Your task to perform on an android device: toggle location history Image 0: 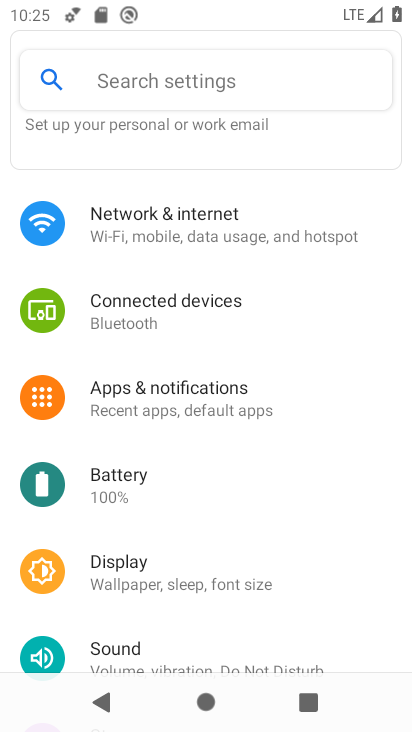
Step 0: press home button
Your task to perform on an android device: toggle location history Image 1: 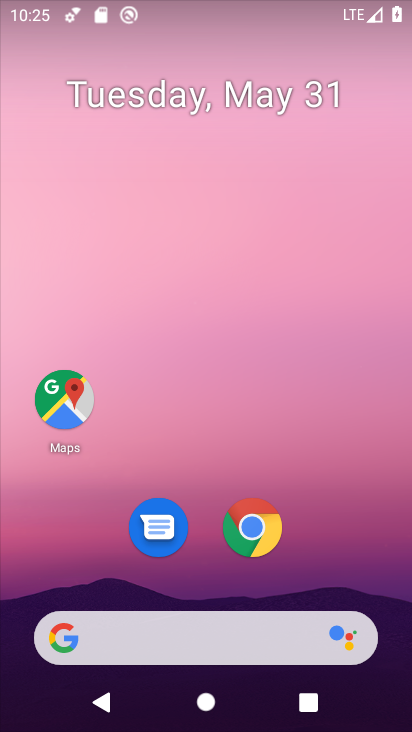
Step 1: click (63, 400)
Your task to perform on an android device: toggle location history Image 2: 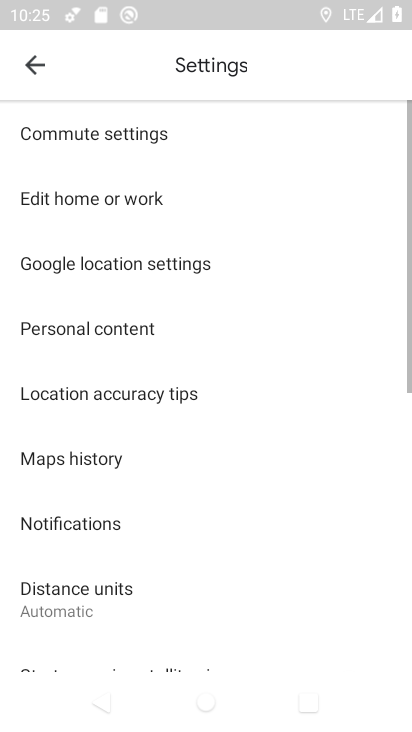
Step 2: click (34, 68)
Your task to perform on an android device: toggle location history Image 3: 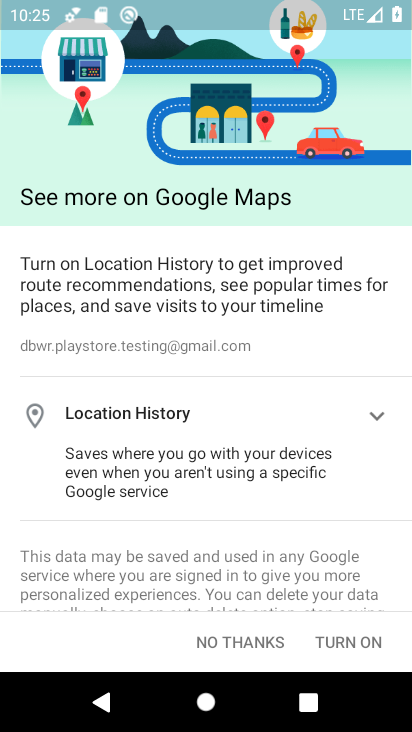
Step 3: click (211, 654)
Your task to perform on an android device: toggle location history Image 4: 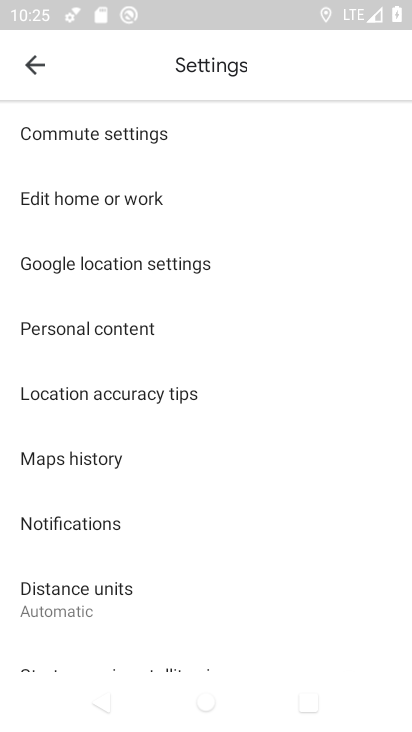
Step 4: click (32, 67)
Your task to perform on an android device: toggle location history Image 5: 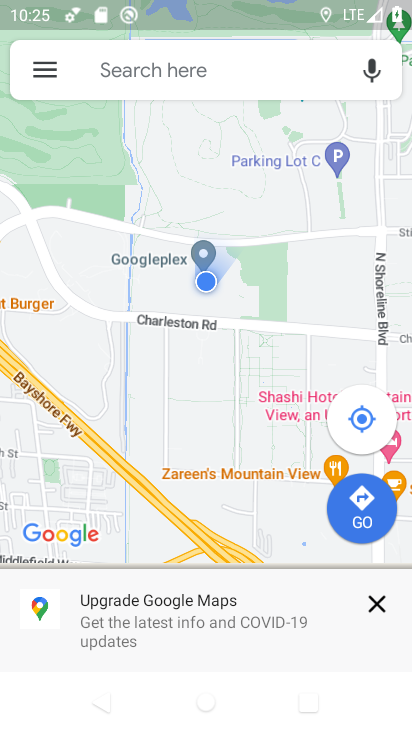
Step 5: click (47, 68)
Your task to perform on an android device: toggle location history Image 6: 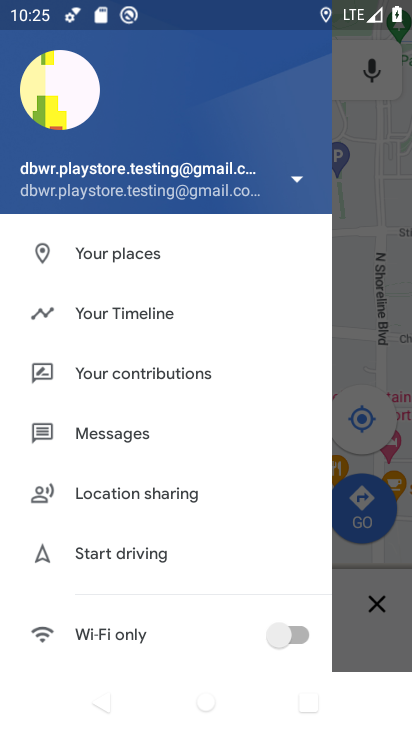
Step 6: click (110, 311)
Your task to perform on an android device: toggle location history Image 7: 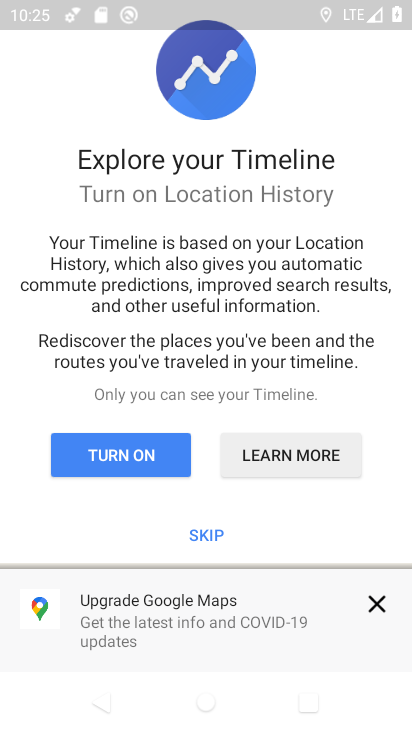
Step 7: click (202, 534)
Your task to perform on an android device: toggle location history Image 8: 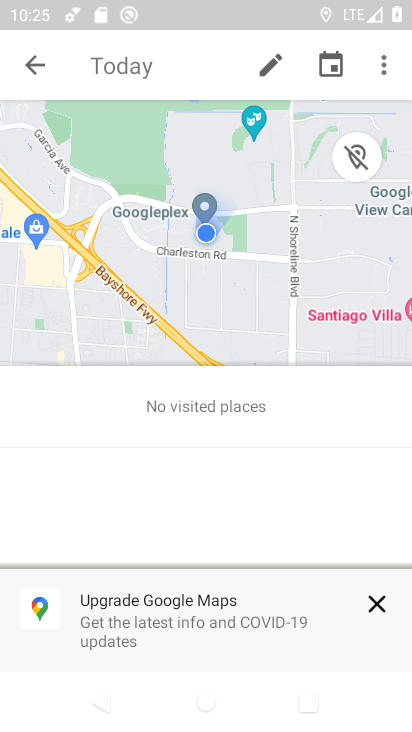
Step 8: click (382, 59)
Your task to perform on an android device: toggle location history Image 9: 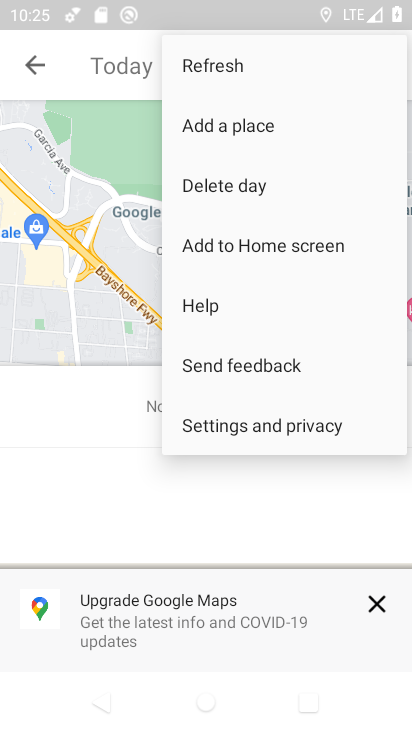
Step 9: click (220, 427)
Your task to perform on an android device: toggle location history Image 10: 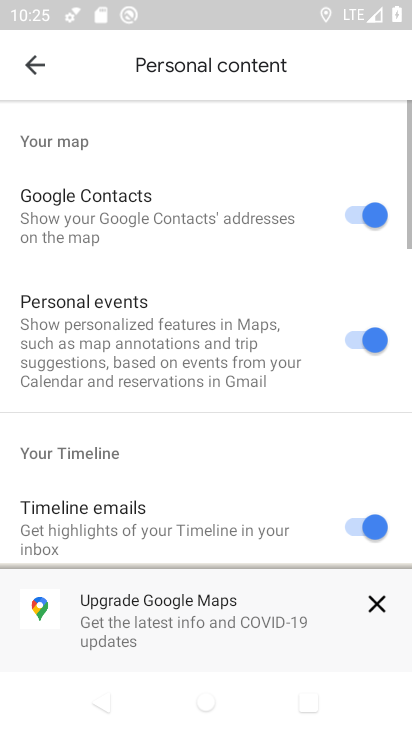
Step 10: drag from (176, 491) to (189, 96)
Your task to perform on an android device: toggle location history Image 11: 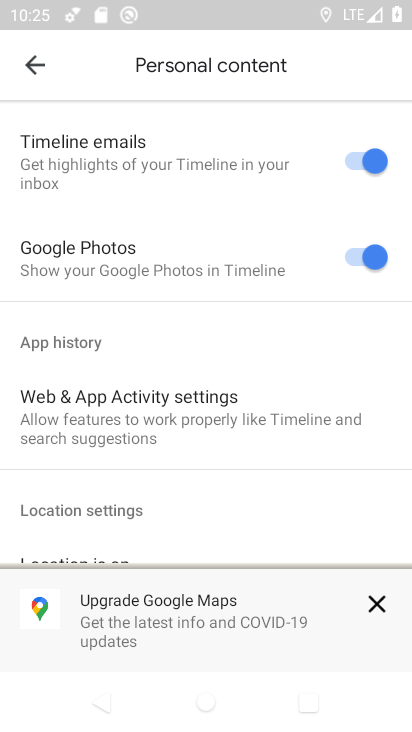
Step 11: drag from (167, 396) to (175, 88)
Your task to perform on an android device: toggle location history Image 12: 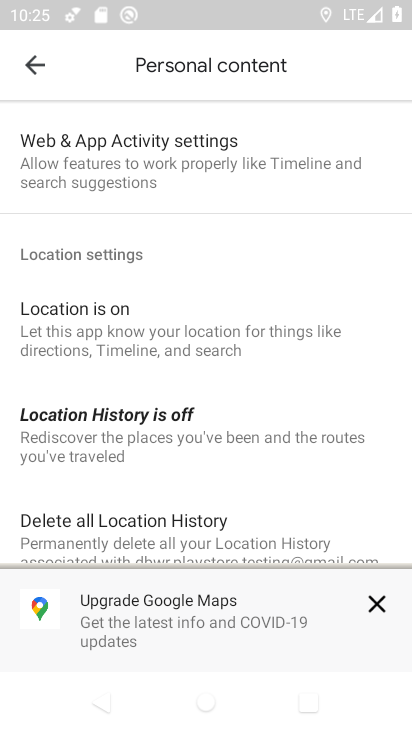
Step 12: drag from (167, 469) to (170, 157)
Your task to perform on an android device: toggle location history Image 13: 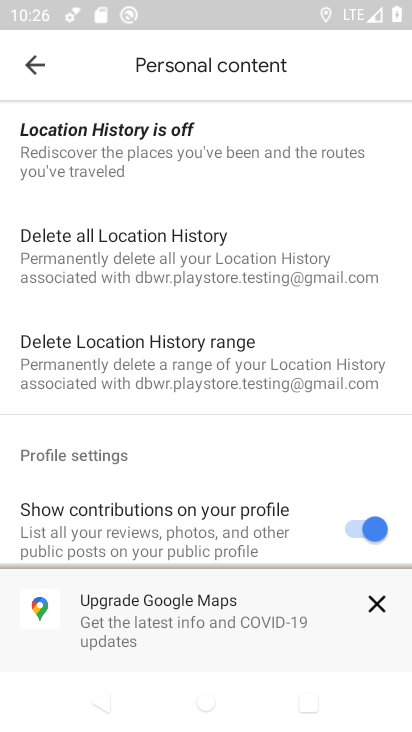
Step 13: click (85, 166)
Your task to perform on an android device: toggle location history Image 14: 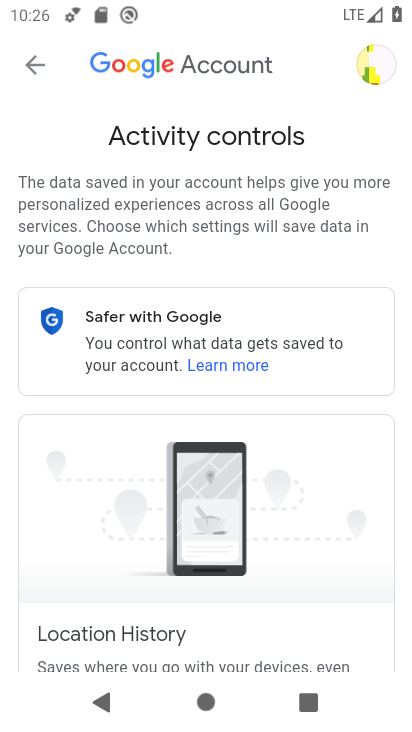
Step 14: drag from (236, 560) to (218, 129)
Your task to perform on an android device: toggle location history Image 15: 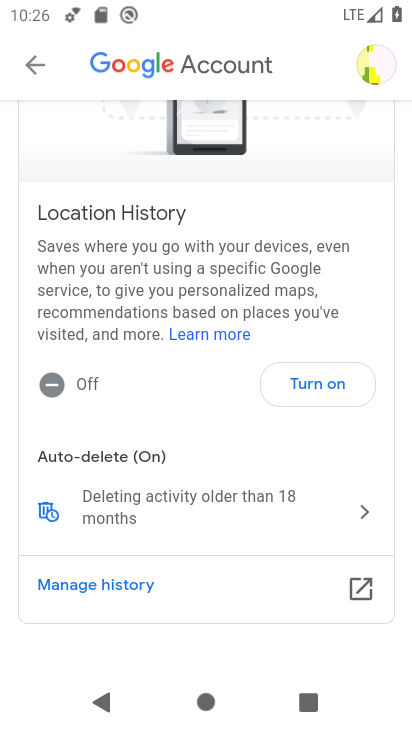
Step 15: click (316, 384)
Your task to perform on an android device: toggle location history Image 16: 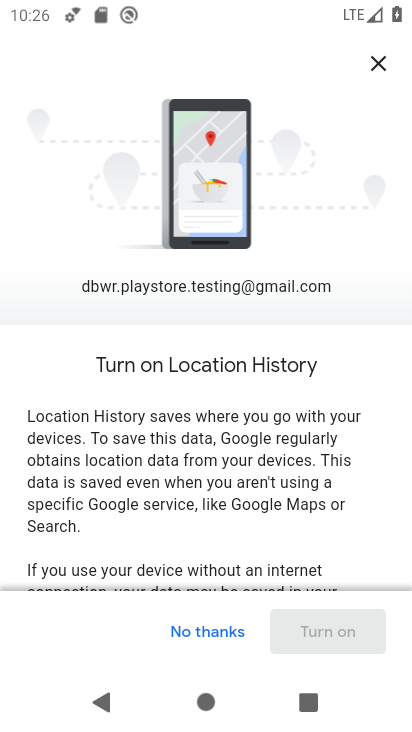
Step 16: drag from (217, 545) to (199, 22)
Your task to perform on an android device: toggle location history Image 17: 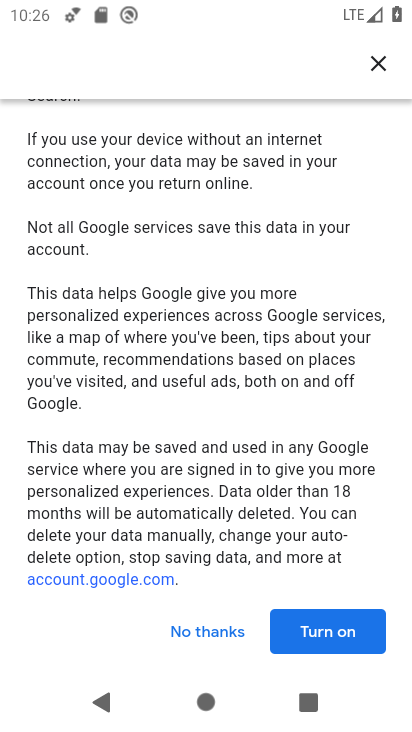
Step 17: drag from (225, 495) to (224, 106)
Your task to perform on an android device: toggle location history Image 18: 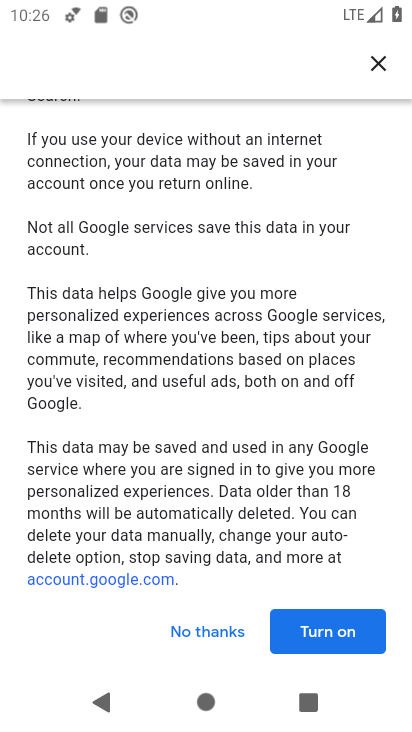
Step 18: click (320, 635)
Your task to perform on an android device: toggle location history Image 19: 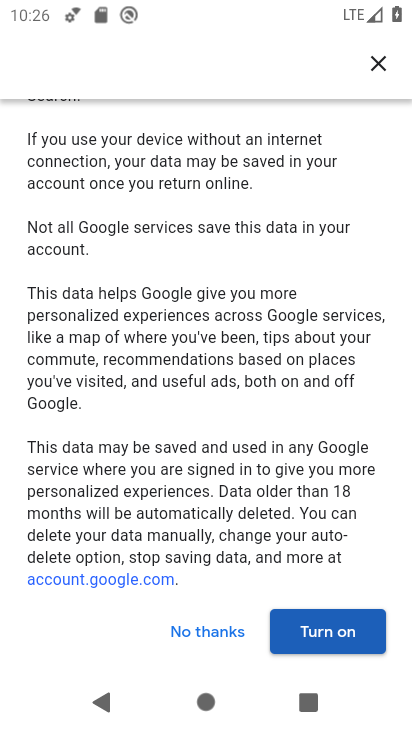
Step 19: click (338, 639)
Your task to perform on an android device: toggle location history Image 20: 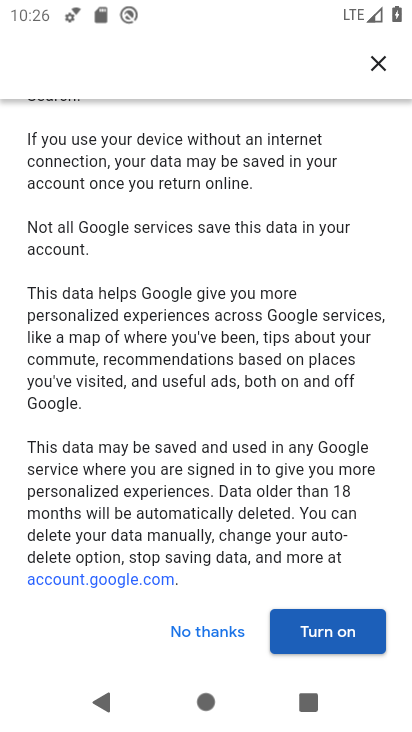
Step 20: drag from (228, 538) to (205, 326)
Your task to perform on an android device: toggle location history Image 21: 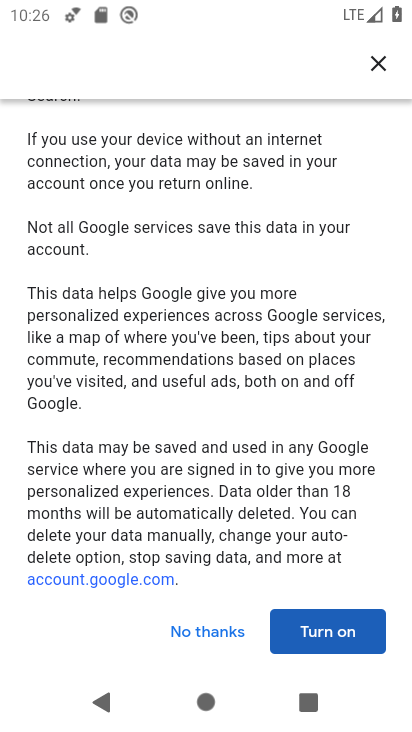
Step 21: click (320, 637)
Your task to perform on an android device: toggle location history Image 22: 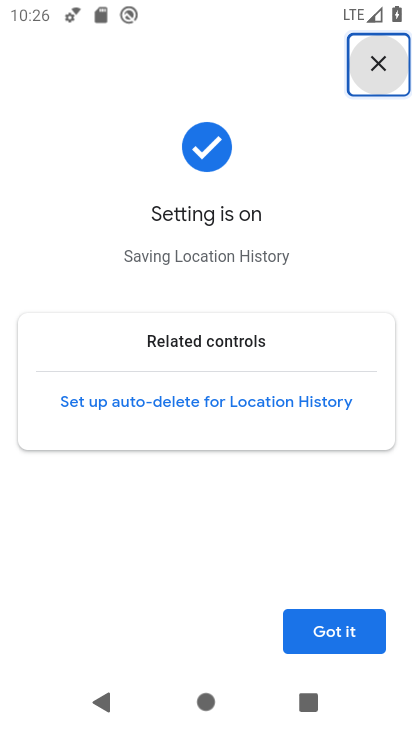
Step 22: click (320, 637)
Your task to perform on an android device: toggle location history Image 23: 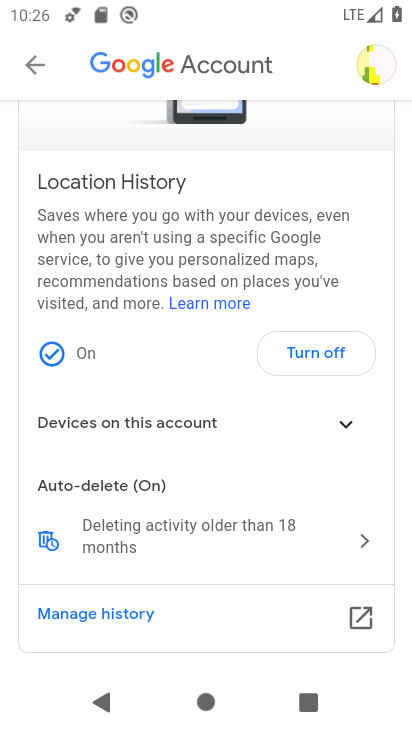
Step 23: task complete